Your task to perform on an android device: Search for pizza restaurants on Maps Image 0: 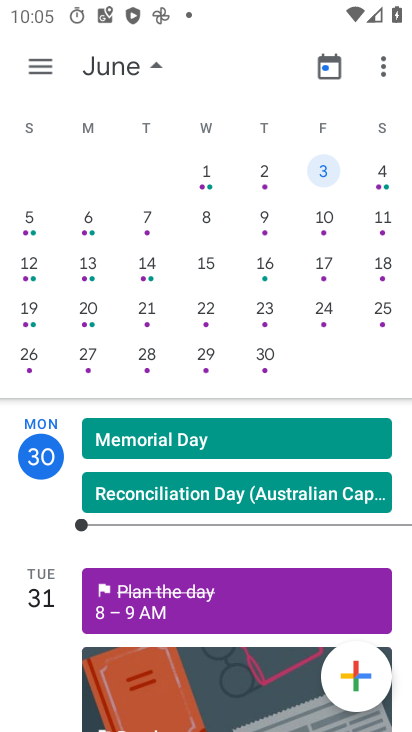
Step 0: press home button
Your task to perform on an android device: Search for pizza restaurants on Maps Image 1: 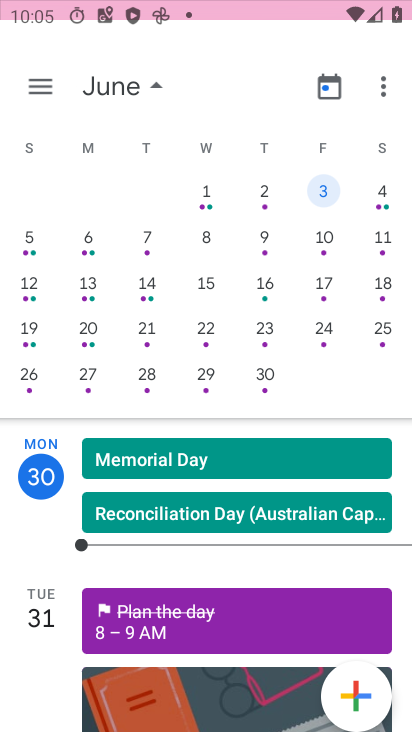
Step 1: drag from (280, 585) to (357, 69)
Your task to perform on an android device: Search for pizza restaurants on Maps Image 2: 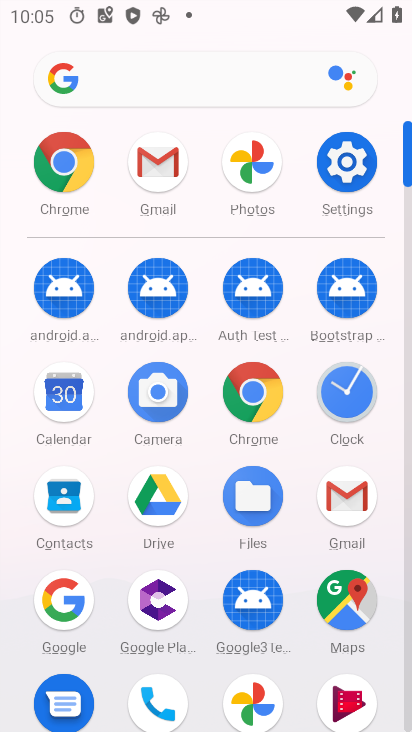
Step 2: click (341, 586)
Your task to perform on an android device: Search for pizza restaurants on Maps Image 3: 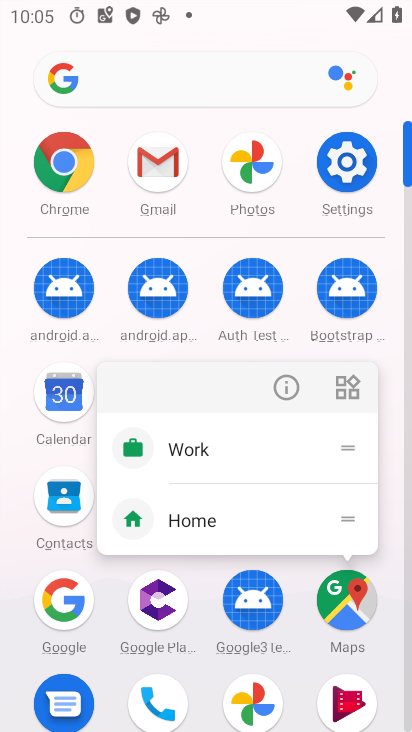
Step 3: click (287, 383)
Your task to perform on an android device: Search for pizza restaurants on Maps Image 4: 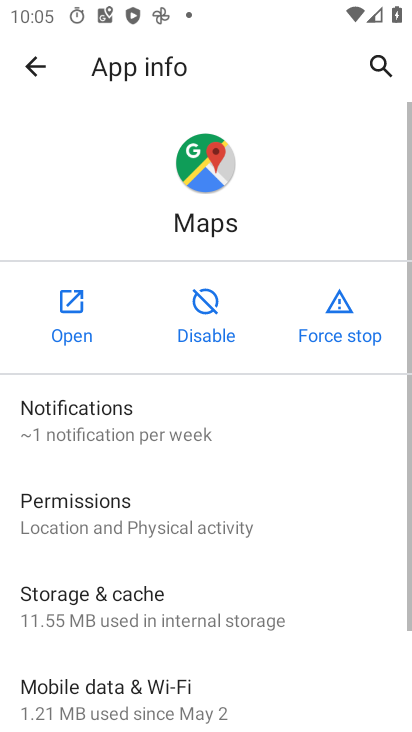
Step 4: click (85, 285)
Your task to perform on an android device: Search for pizza restaurants on Maps Image 5: 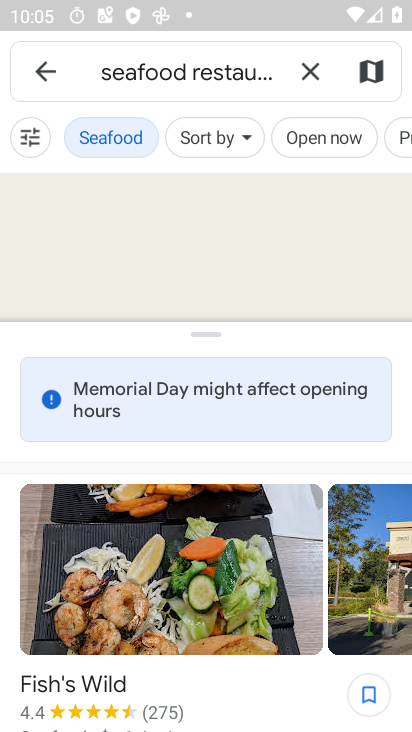
Step 5: click (309, 61)
Your task to perform on an android device: Search for pizza restaurants on Maps Image 6: 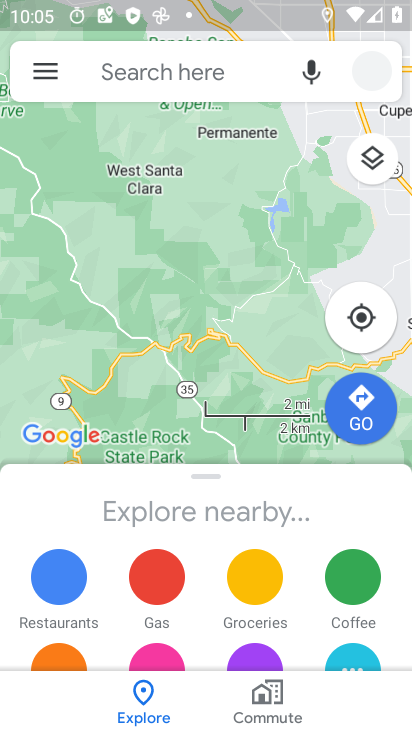
Step 6: click (193, 75)
Your task to perform on an android device: Search for pizza restaurants on Maps Image 7: 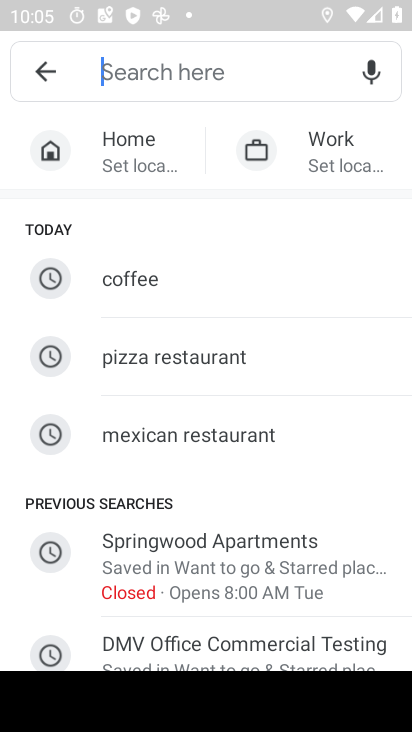
Step 7: click (208, 352)
Your task to perform on an android device: Search for pizza restaurants on Maps Image 8: 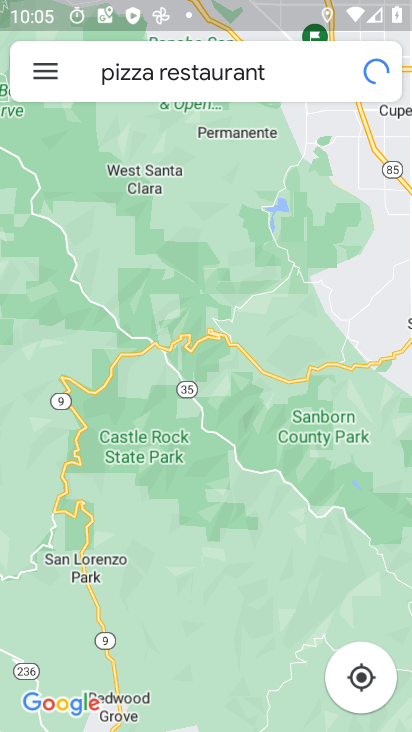
Step 8: task complete